Your task to perform on an android device: change your default location settings in chrome Image 0: 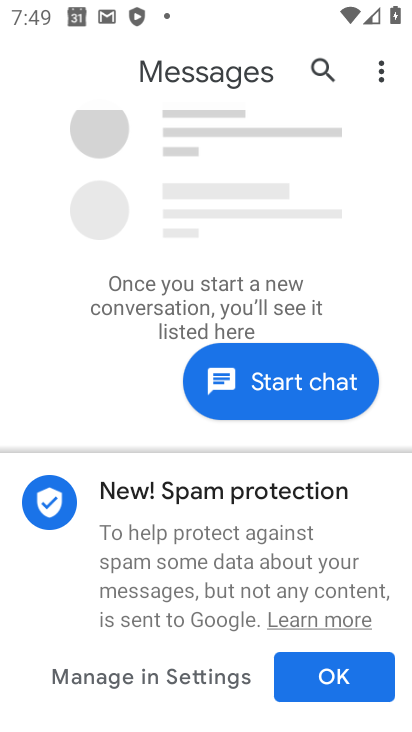
Step 0: press home button
Your task to perform on an android device: change your default location settings in chrome Image 1: 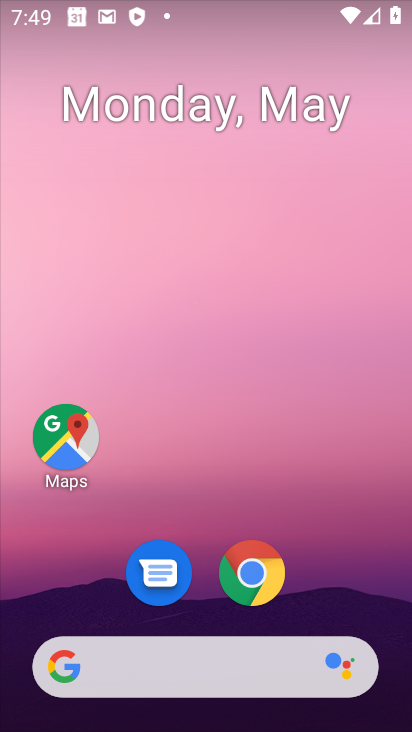
Step 1: drag from (175, 701) to (232, 164)
Your task to perform on an android device: change your default location settings in chrome Image 2: 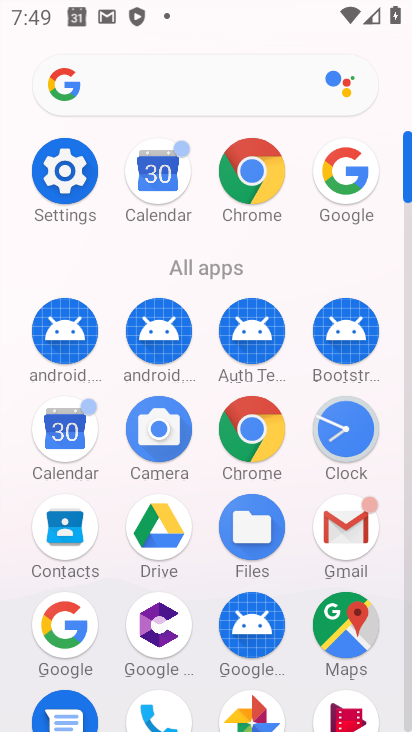
Step 2: click (262, 177)
Your task to perform on an android device: change your default location settings in chrome Image 3: 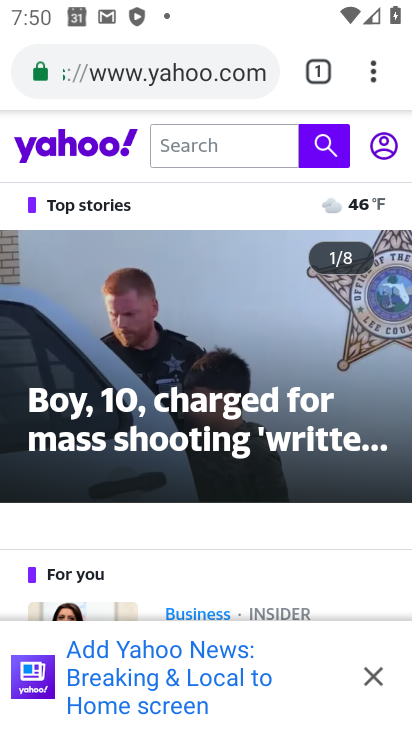
Step 3: click (368, 78)
Your task to perform on an android device: change your default location settings in chrome Image 4: 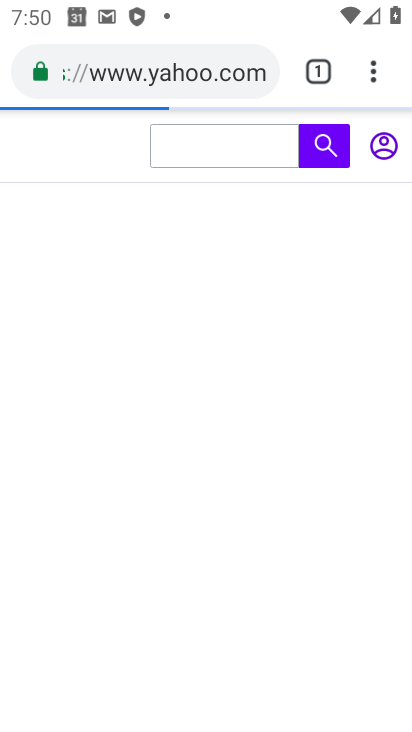
Step 4: click (384, 77)
Your task to perform on an android device: change your default location settings in chrome Image 5: 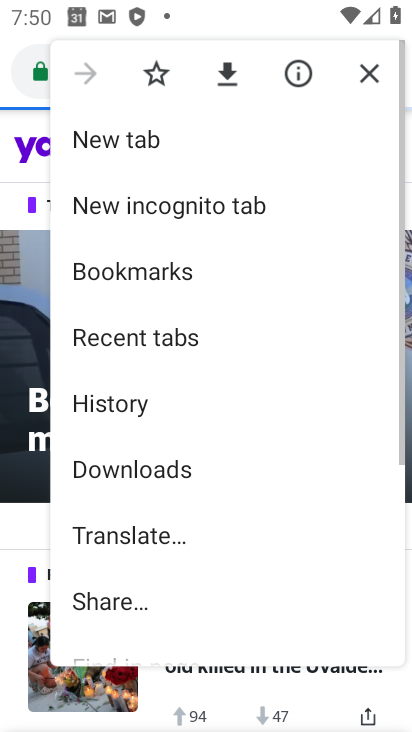
Step 5: drag from (185, 465) to (224, 191)
Your task to perform on an android device: change your default location settings in chrome Image 6: 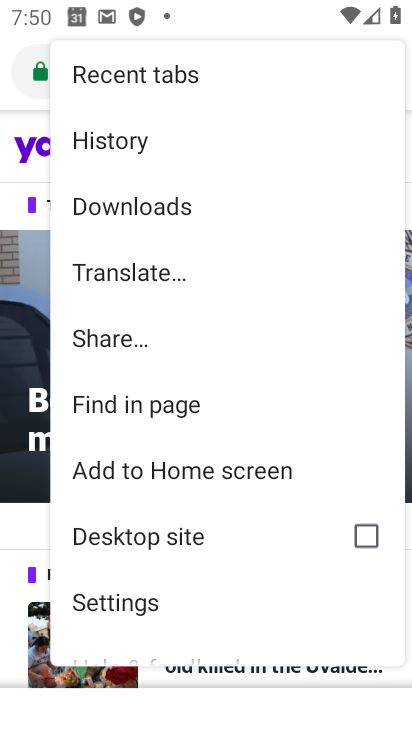
Step 6: click (140, 600)
Your task to perform on an android device: change your default location settings in chrome Image 7: 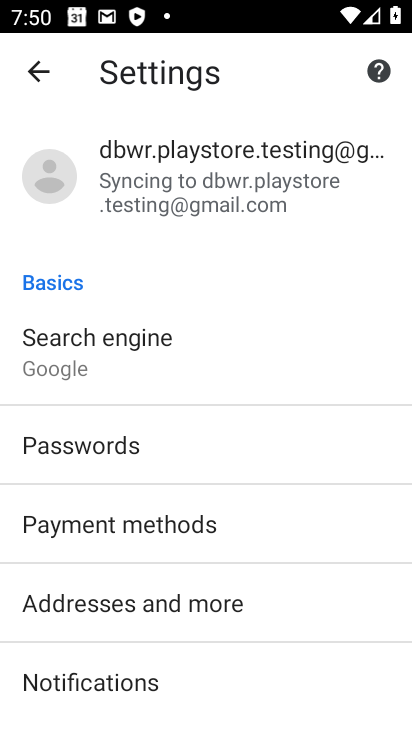
Step 7: drag from (162, 543) to (180, 346)
Your task to perform on an android device: change your default location settings in chrome Image 8: 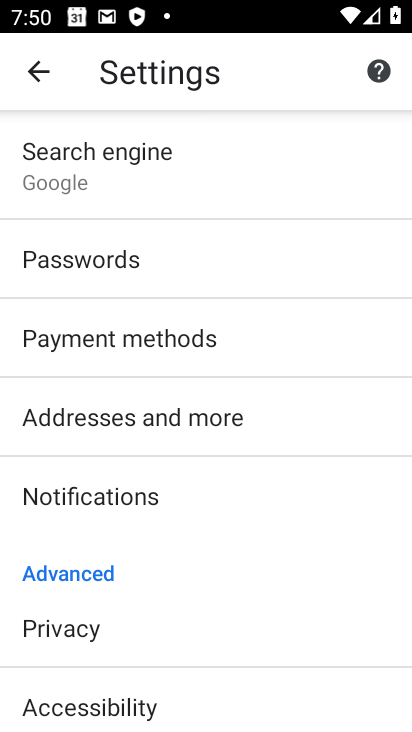
Step 8: drag from (90, 622) to (115, 427)
Your task to perform on an android device: change your default location settings in chrome Image 9: 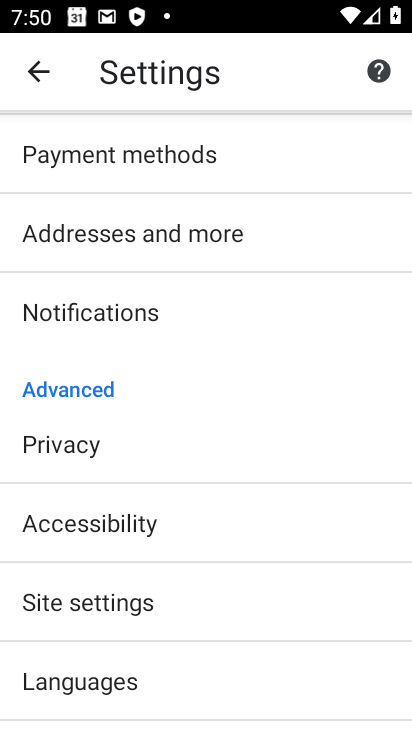
Step 9: click (109, 613)
Your task to perform on an android device: change your default location settings in chrome Image 10: 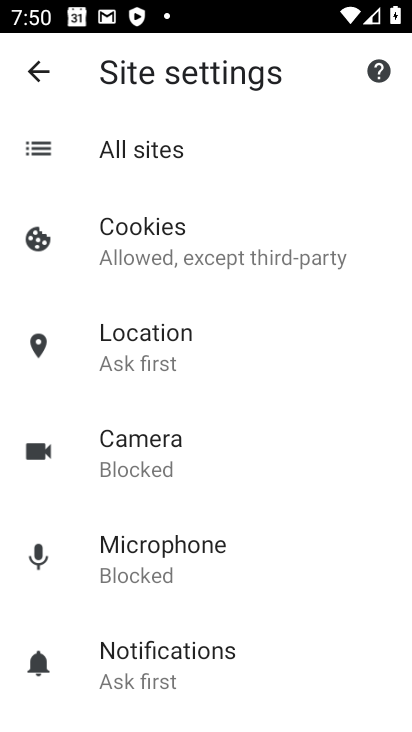
Step 10: click (198, 341)
Your task to perform on an android device: change your default location settings in chrome Image 11: 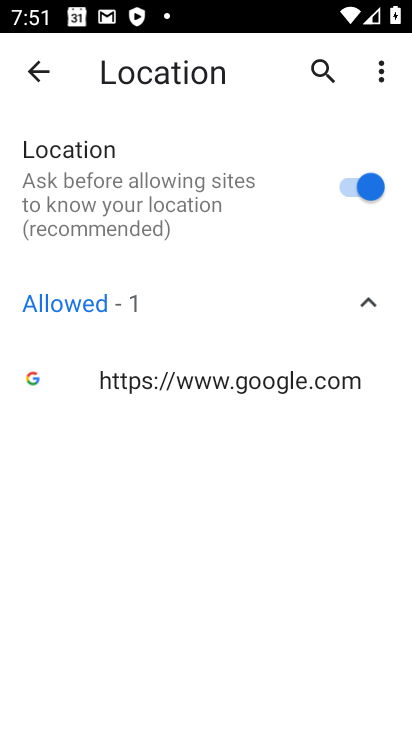
Step 11: click (358, 166)
Your task to perform on an android device: change your default location settings in chrome Image 12: 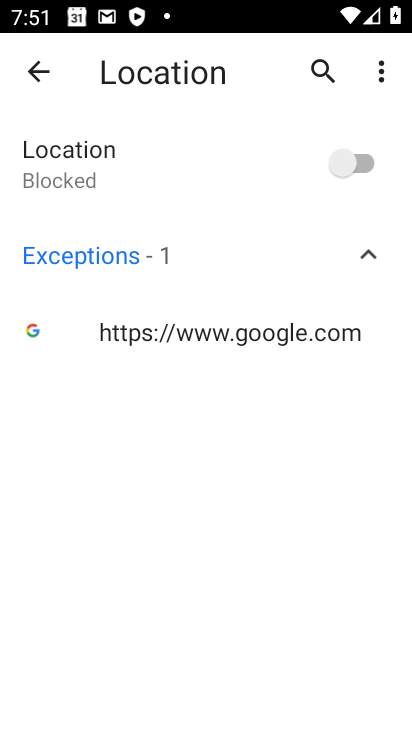
Step 12: press home button
Your task to perform on an android device: change your default location settings in chrome Image 13: 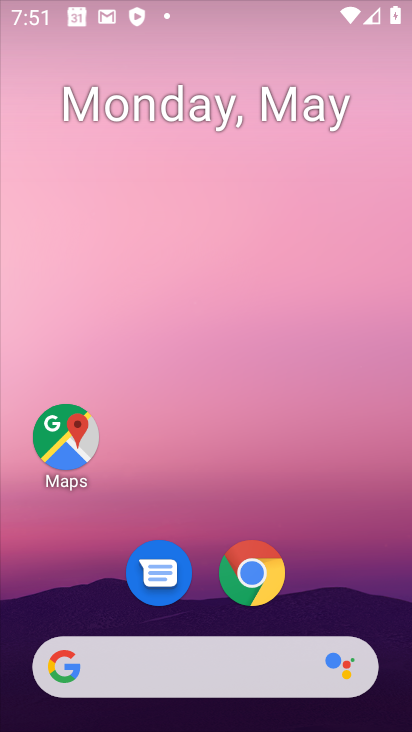
Step 13: drag from (123, 627) to (166, 258)
Your task to perform on an android device: change your default location settings in chrome Image 14: 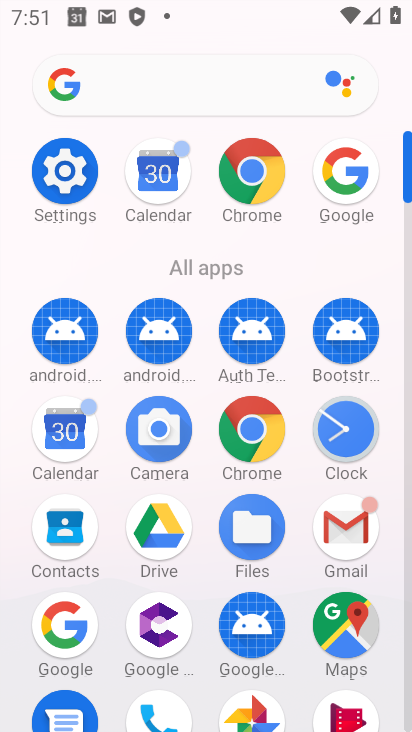
Step 14: click (264, 197)
Your task to perform on an android device: change your default location settings in chrome Image 15: 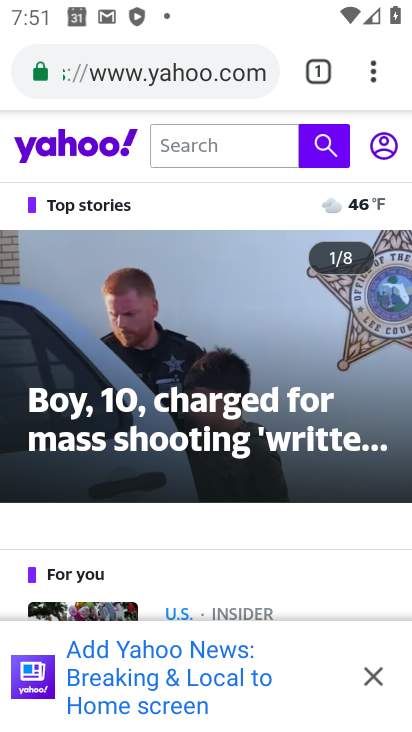
Step 15: click (396, 70)
Your task to perform on an android device: change your default location settings in chrome Image 16: 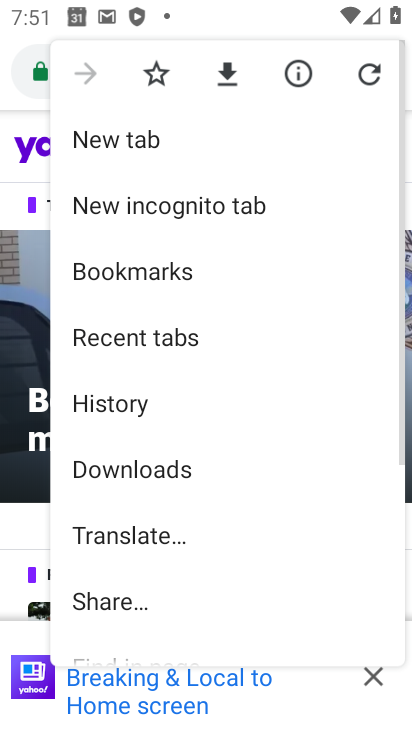
Step 16: drag from (152, 573) to (257, 91)
Your task to perform on an android device: change your default location settings in chrome Image 17: 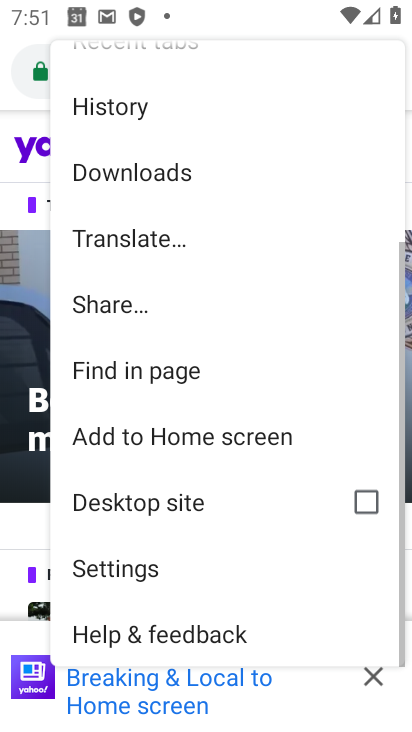
Step 17: click (130, 579)
Your task to perform on an android device: change your default location settings in chrome Image 18: 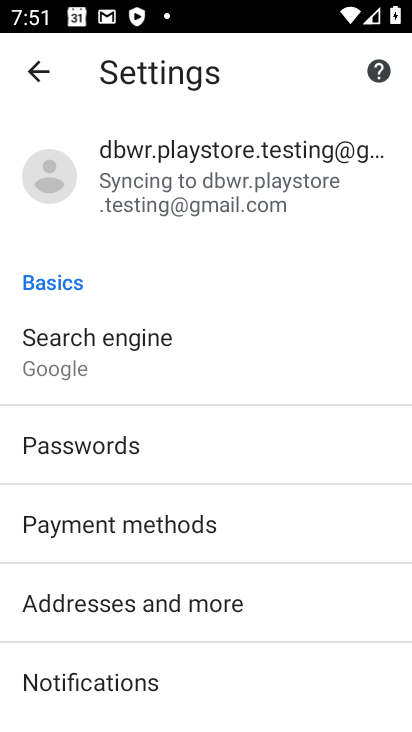
Step 18: drag from (115, 568) to (179, 182)
Your task to perform on an android device: change your default location settings in chrome Image 19: 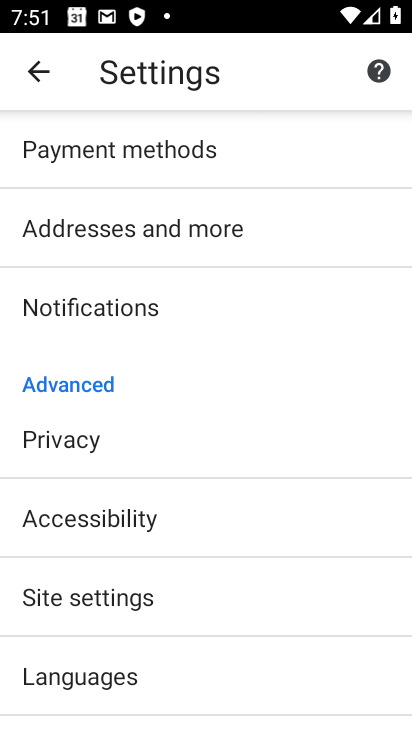
Step 19: drag from (129, 565) to (163, 300)
Your task to perform on an android device: change your default location settings in chrome Image 20: 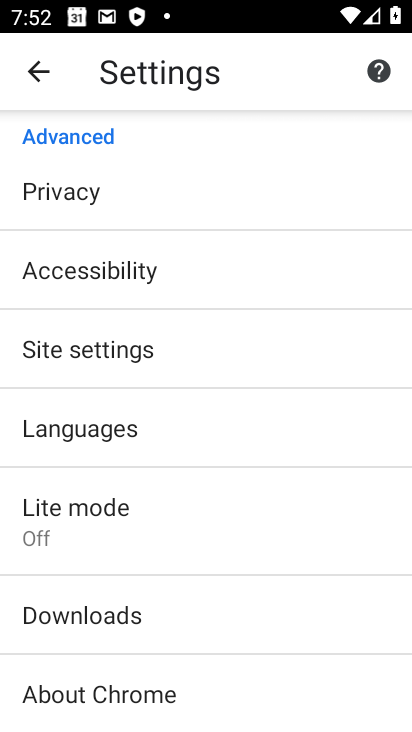
Step 20: click (121, 348)
Your task to perform on an android device: change your default location settings in chrome Image 21: 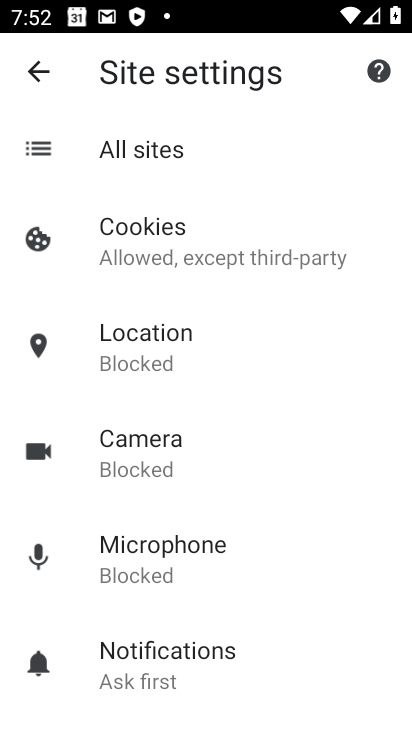
Step 21: click (173, 367)
Your task to perform on an android device: change your default location settings in chrome Image 22: 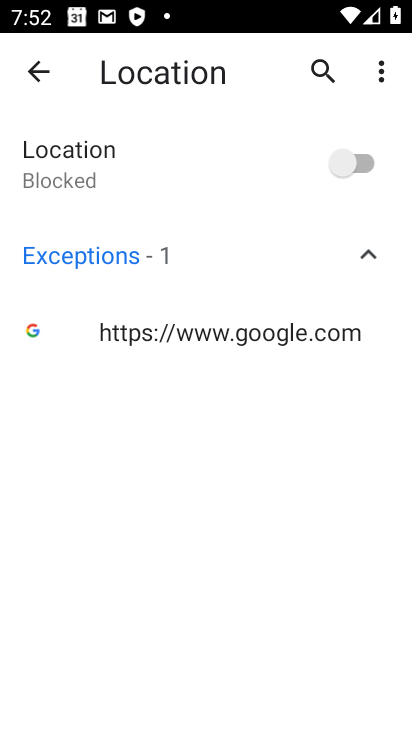
Step 22: click (371, 166)
Your task to perform on an android device: change your default location settings in chrome Image 23: 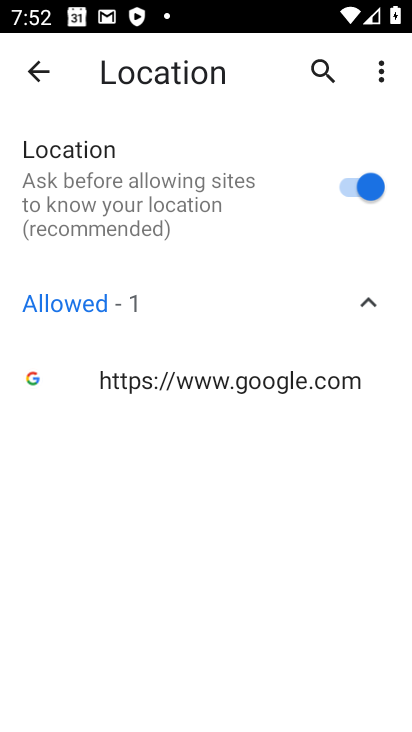
Step 23: task complete